Your task to perform on an android device: install app "VLC for Android" Image 0: 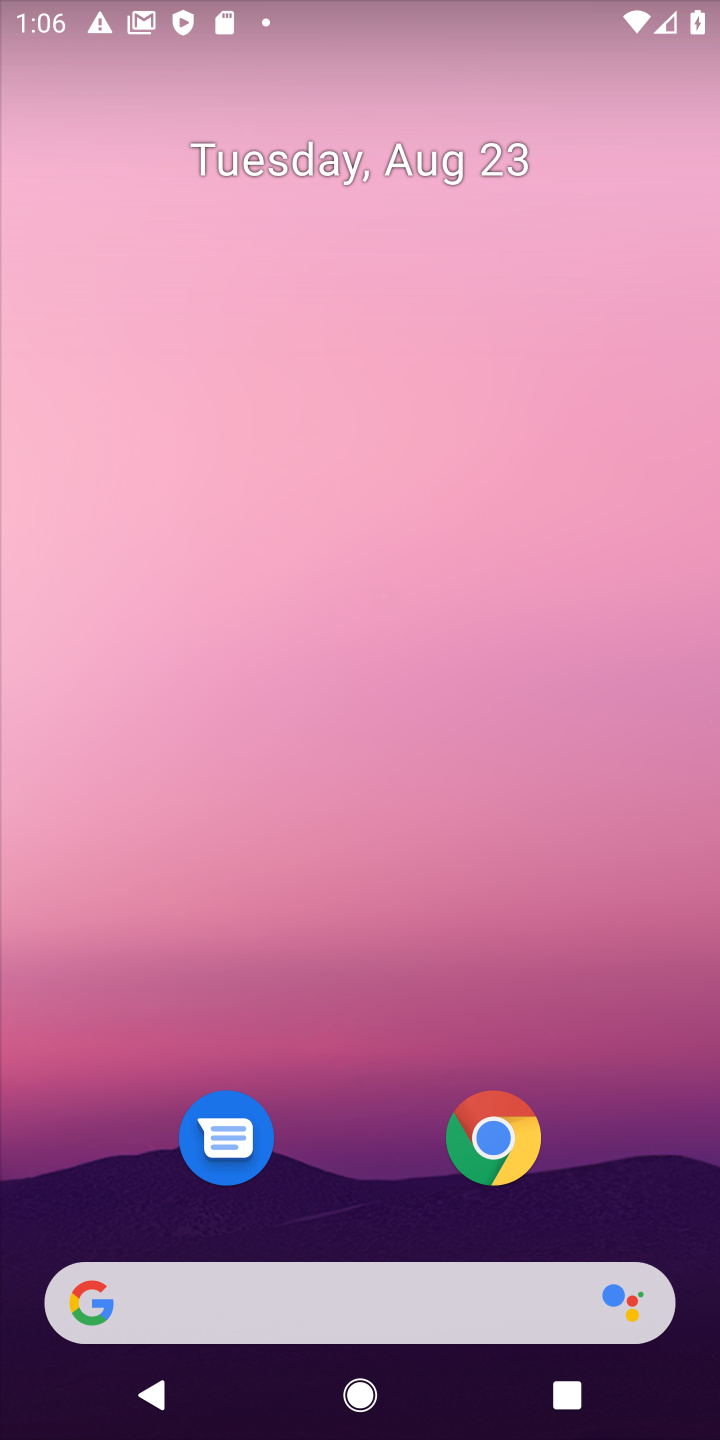
Step 0: drag from (356, 1219) to (437, 97)
Your task to perform on an android device: install app "VLC for Android" Image 1: 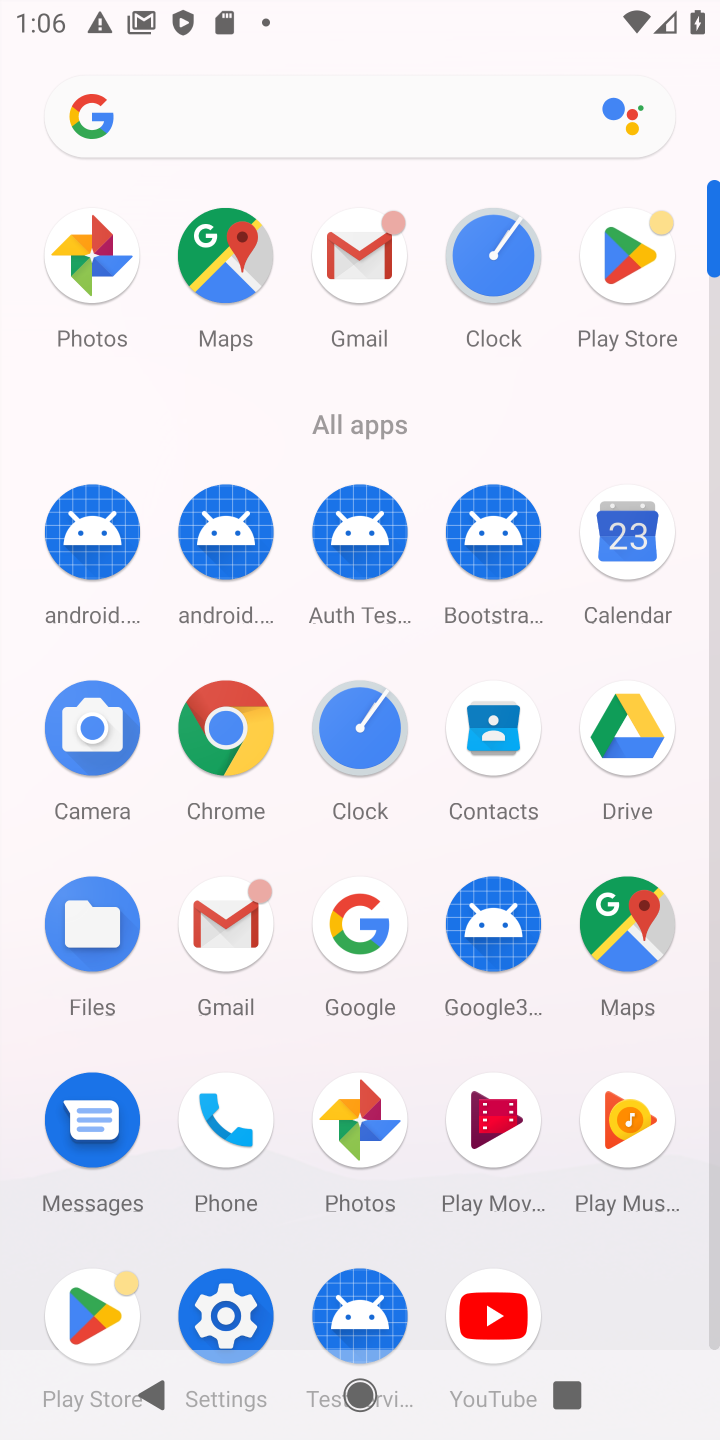
Step 1: click (96, 1312)
Your task to perform on an android device: install app "VLC for Android" Image 2: 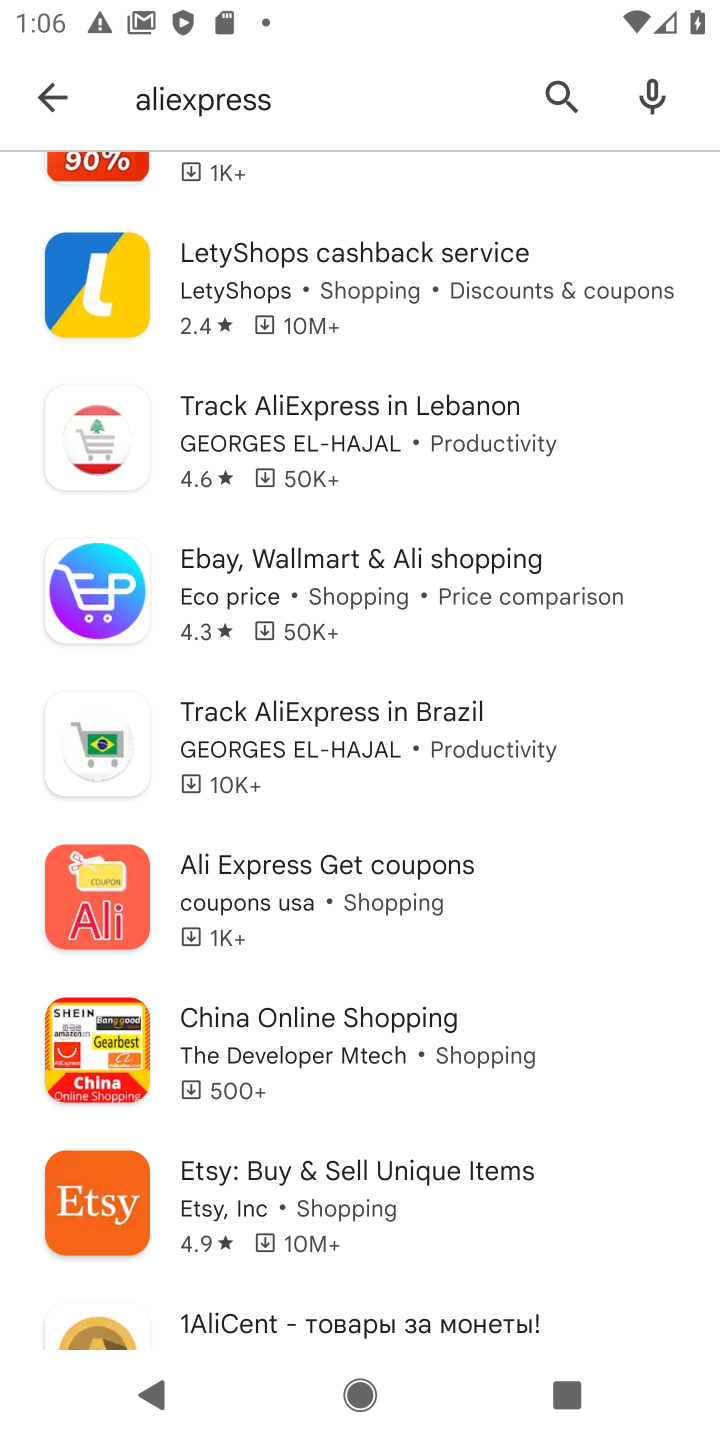
Step 2: press back button
Your task to perform on an android device: install app "VLC for Android" Image 3: 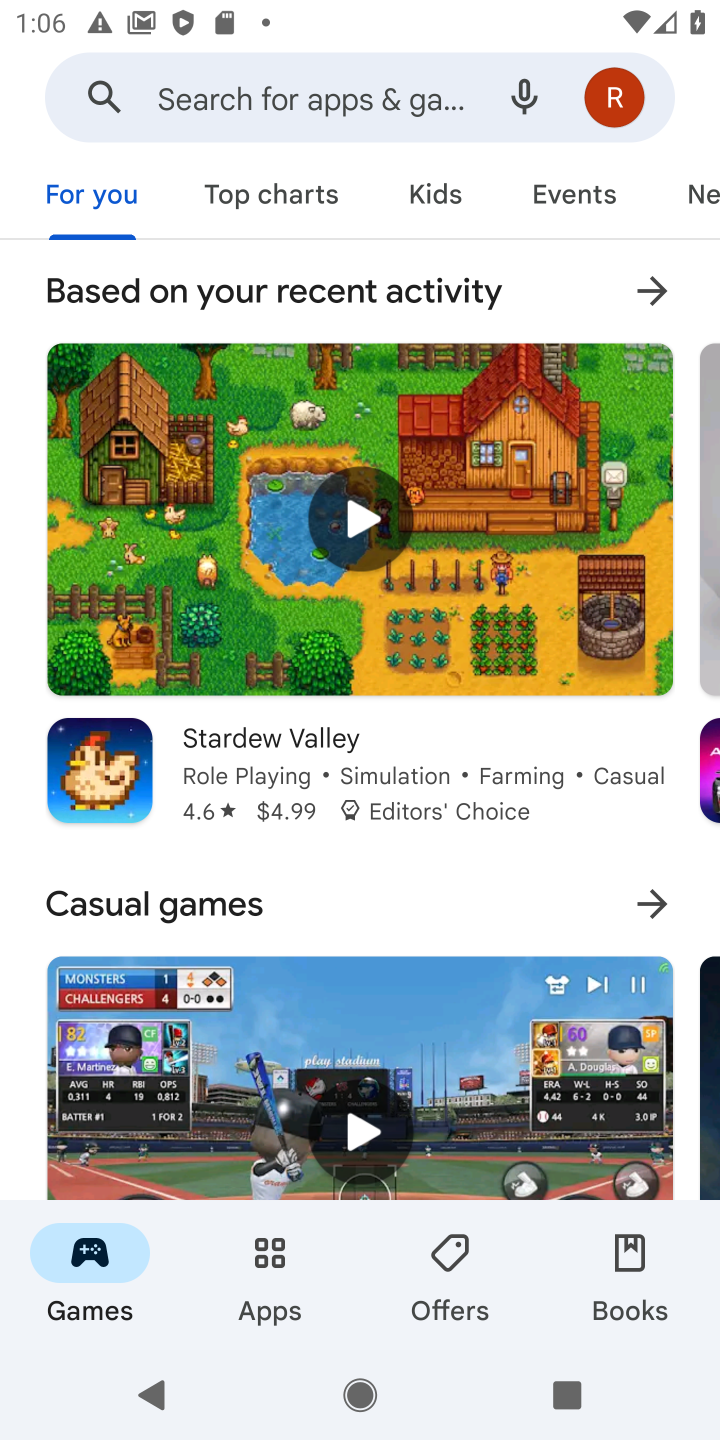
Step 3: click (365, 90)
Your task to perform on an android device: install app "VLC for Android" Image 4: 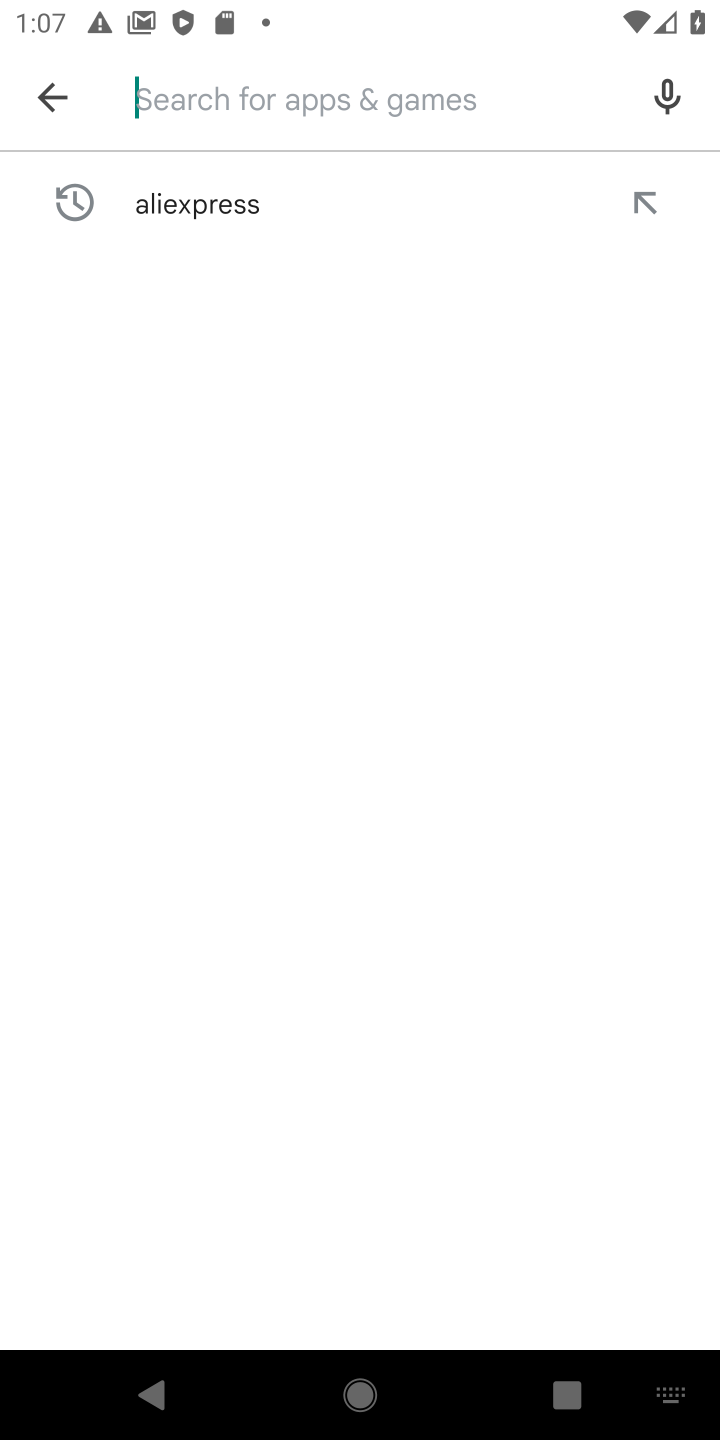
Step 4: type "VLC for Android"
Your task to perform on an android device: install app "VLC for Android" Image 5: 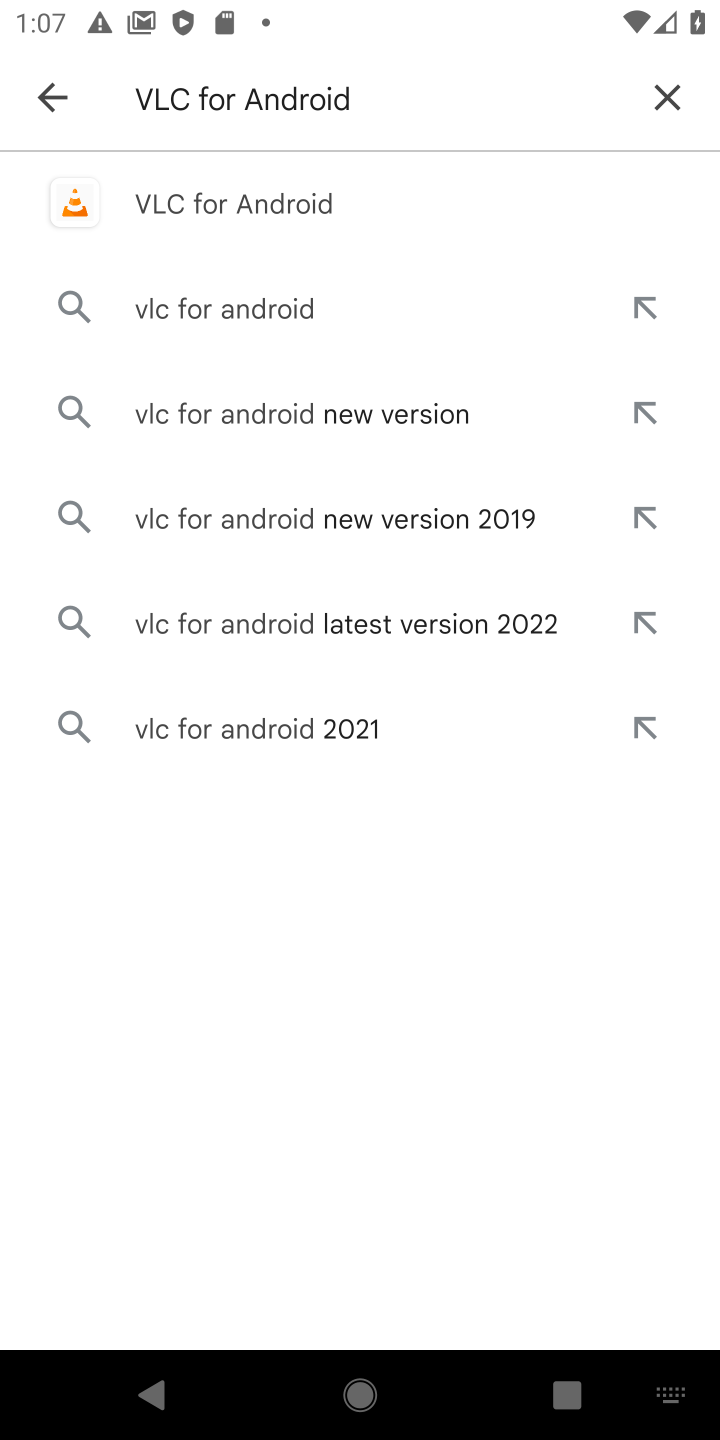
Step 5: click (240, 199)
Your task to perform on an android device: install app "VLC for Android" Image 6: 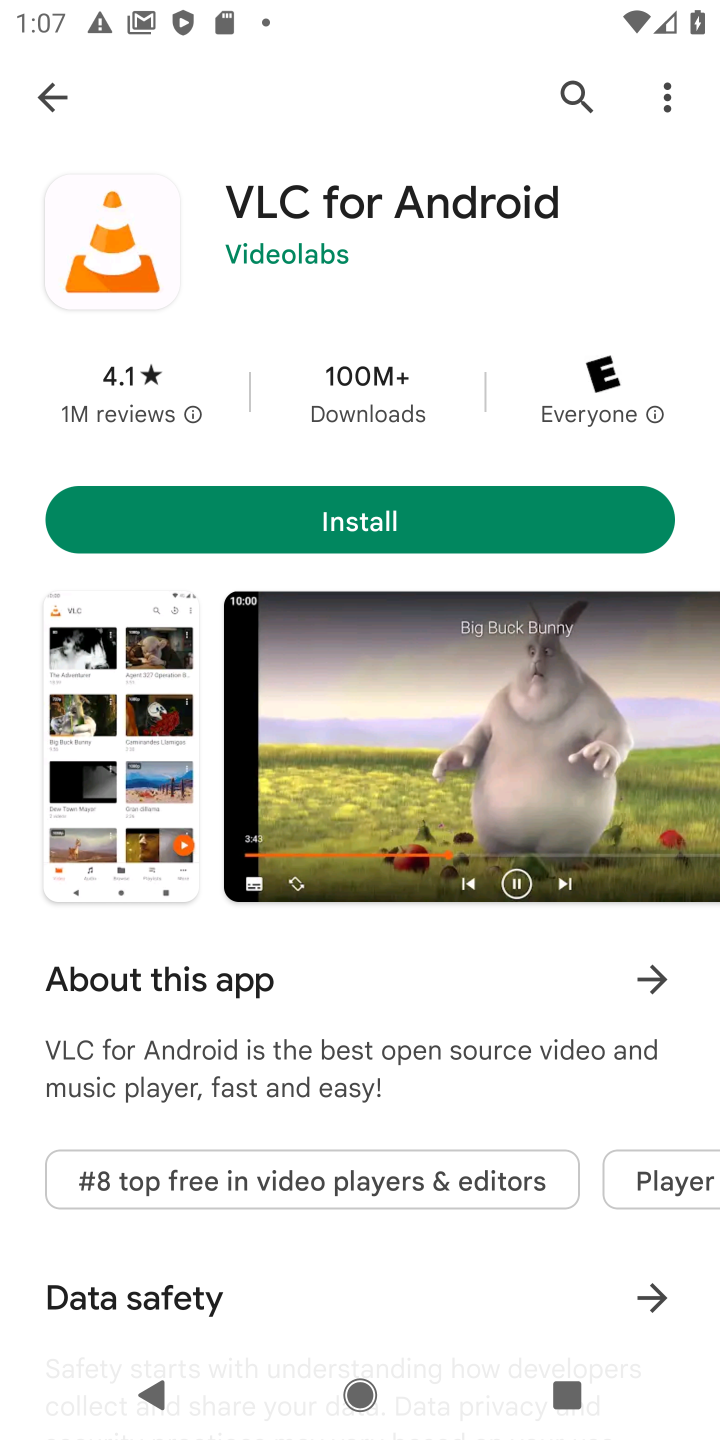
Step 6: click (349, 517)
Your task to perform on an android device: install app "VLC for Android" Image 7: 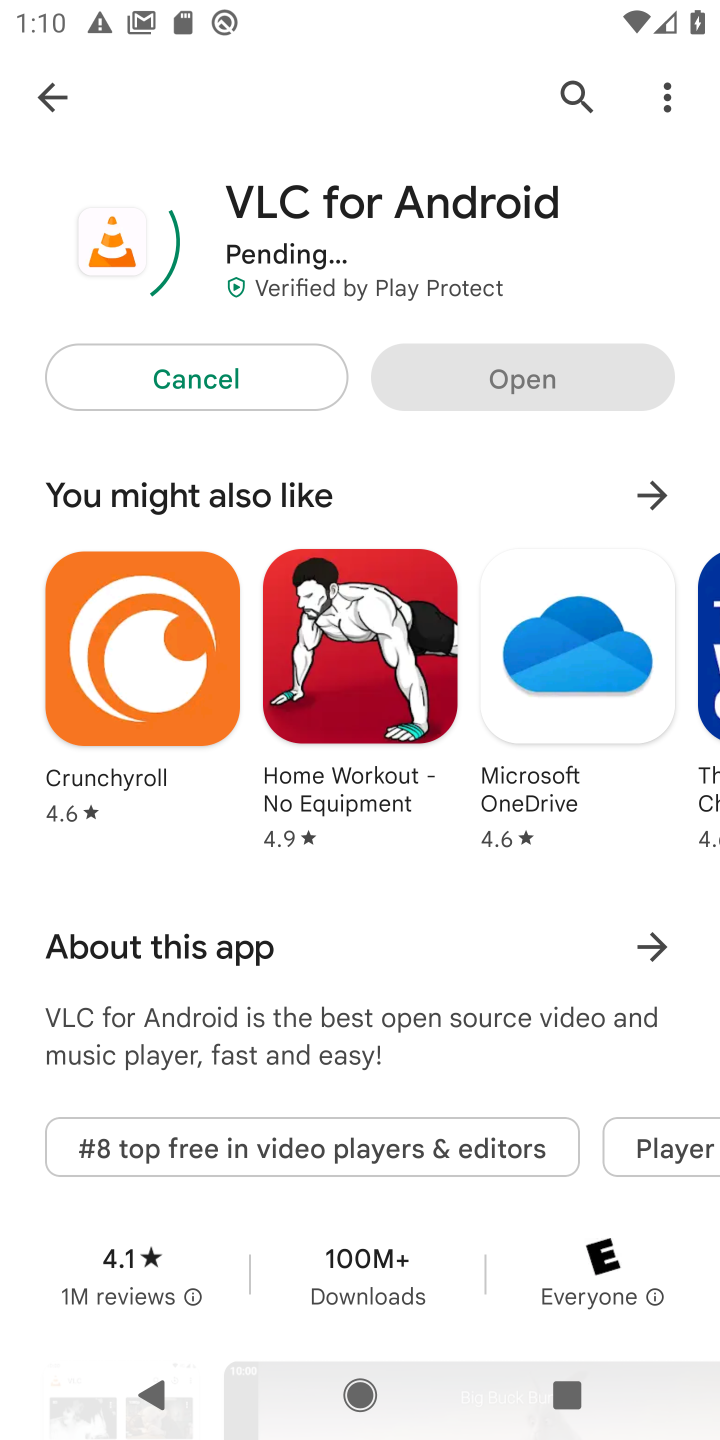
Step 7: task complete